Your task to perform on an android device: Search for Mexican restaurants on Maps Image 0: 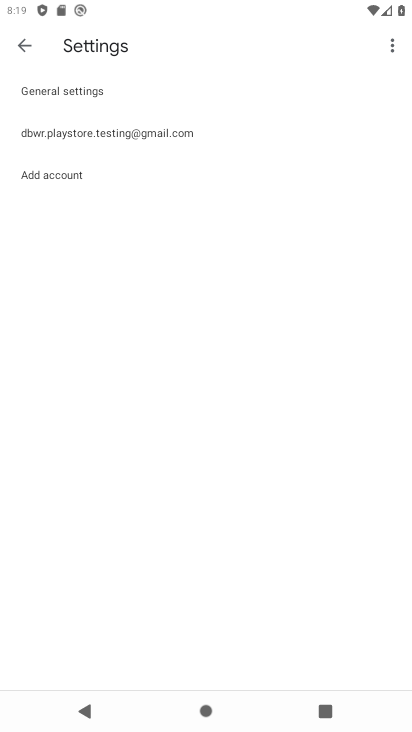
Step 0: press home button
Your task to perform on an android device: Search for Mexican restaurants on Maps Image 1: 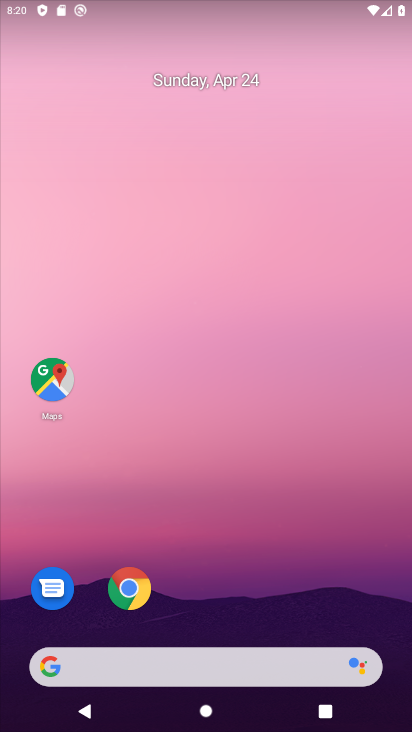
Step 1: click (52, 381)
Your task to perform on an android device: Search for Mexican restaurants on Maps Image 2: 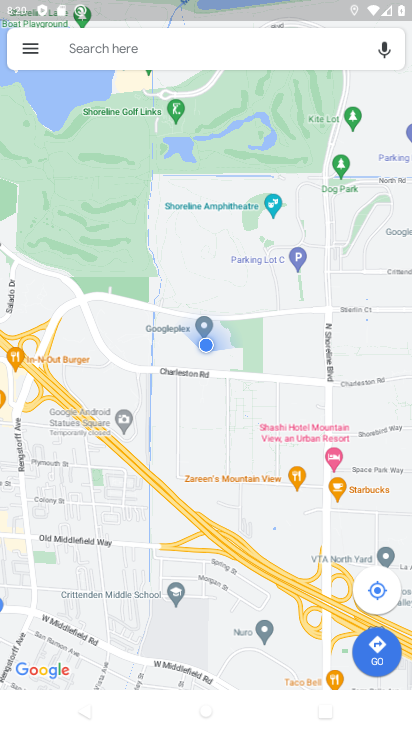
Step 2: click (251, 57)
Your task to perform on an android device: Search for Mexican restaurants on Maps Image 3: 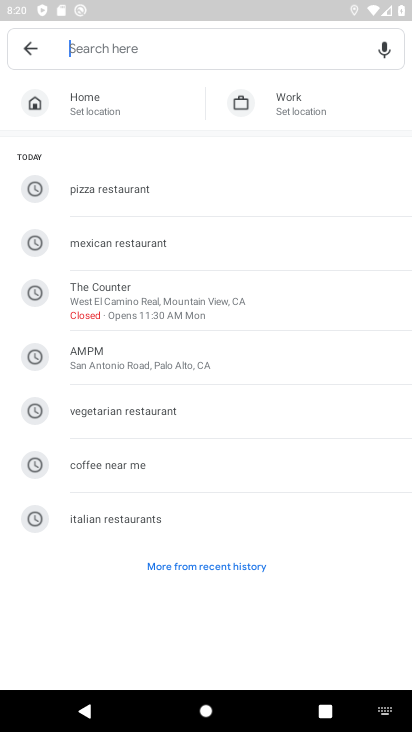
Step 3: type "Mexican restaurants"
Your task to perform on an android device: Search for Mexican restaurants on Maps Image 4: 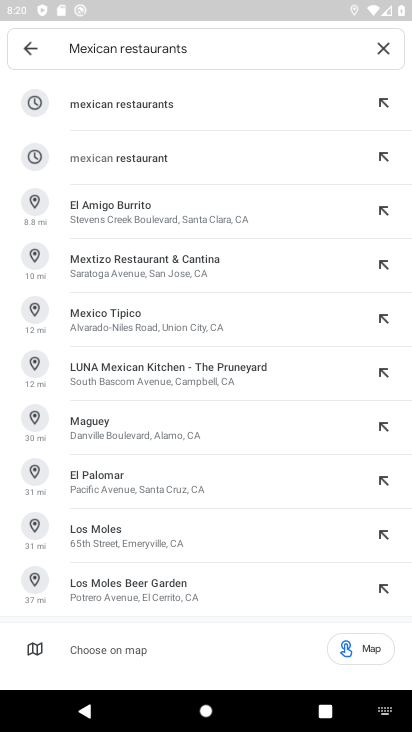
Step 4: click (127, 104)
Your task to perform on an android device: Search for Mexican restaurants on Maps Image 5: 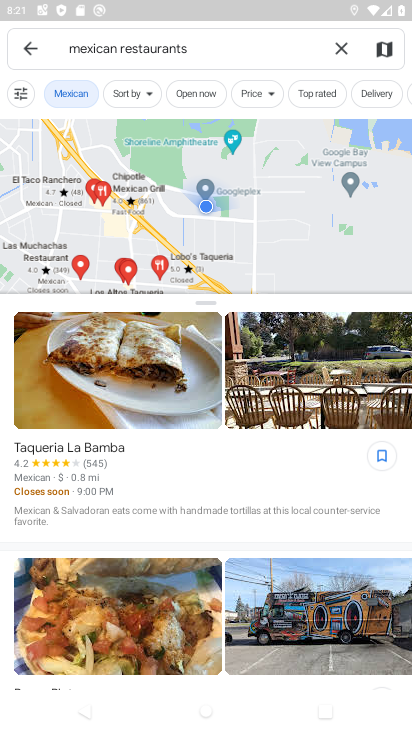
Step 5: task complete